Your task to perform on an android device: toggle translation in the chrome app Image 0: 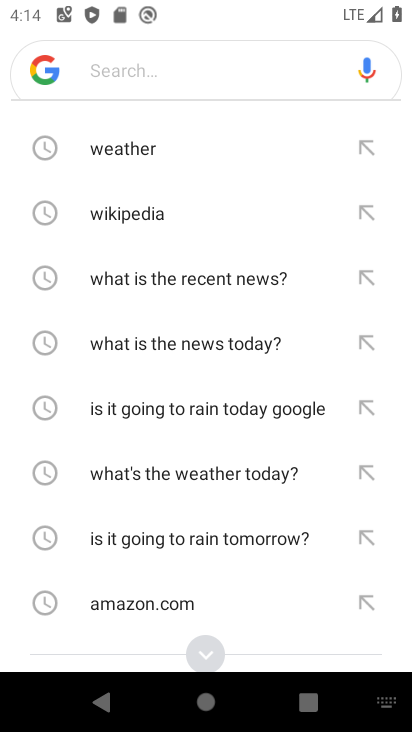
Step 0: press home button
Your task to perform on an android device: toggle translation in the chrome app Image 1: 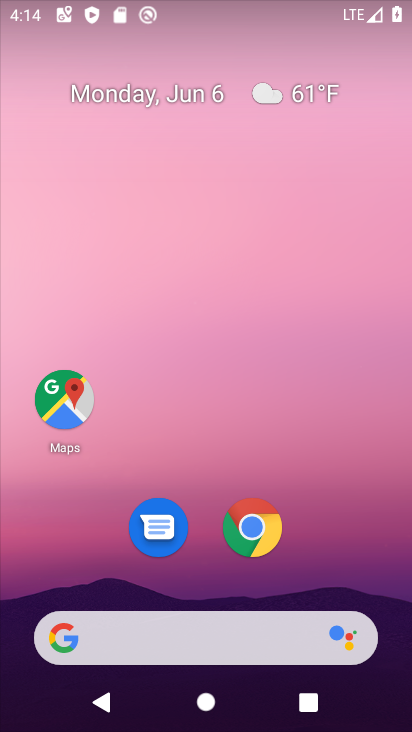
Step 1: click (249, 519)
Your task to perform on an android device: toggle translation in the chrome app Image 2: 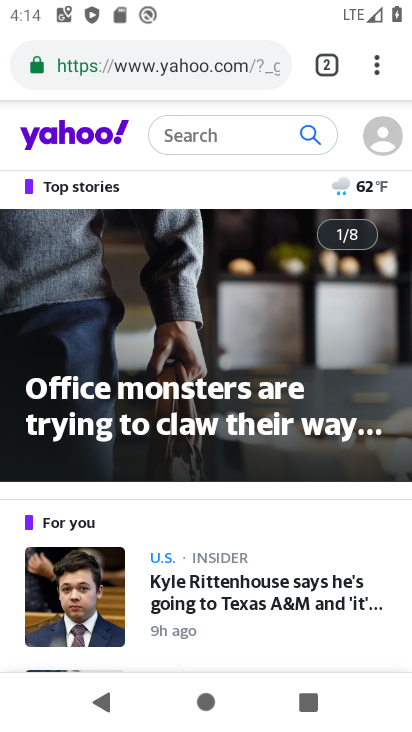
Step 2: click (382, 56)
Your task to perform on an android device: toggle translation in the chrome app Image 3: 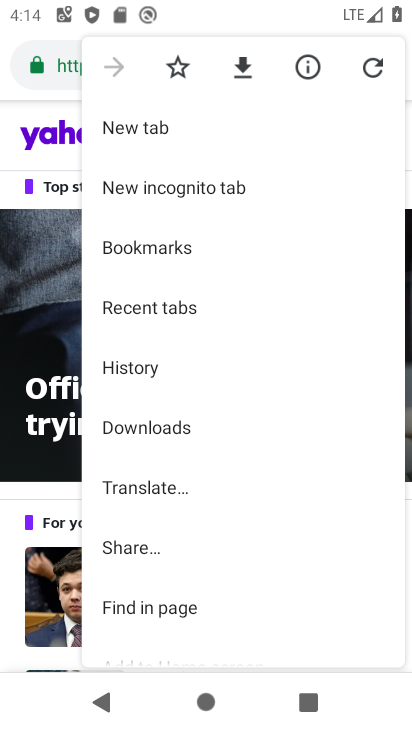
Step 3: click (130, 477)
Your task to perform on an android device: toggle translation in the chrome app Image 4: 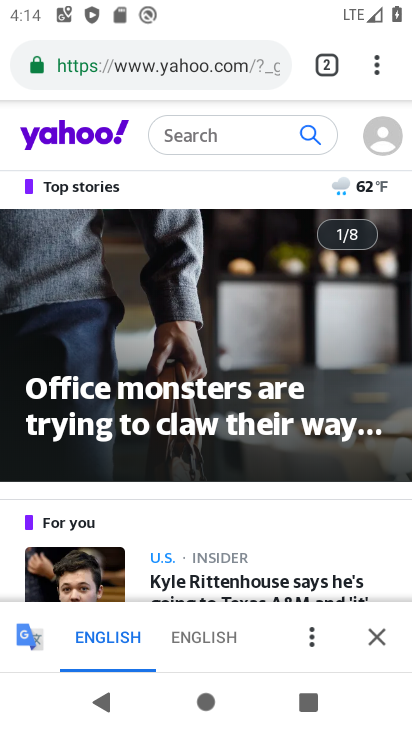
Step 4: click (200, 635)
Your task to perform on an android device: toggle translation in the chrome app Image 5: 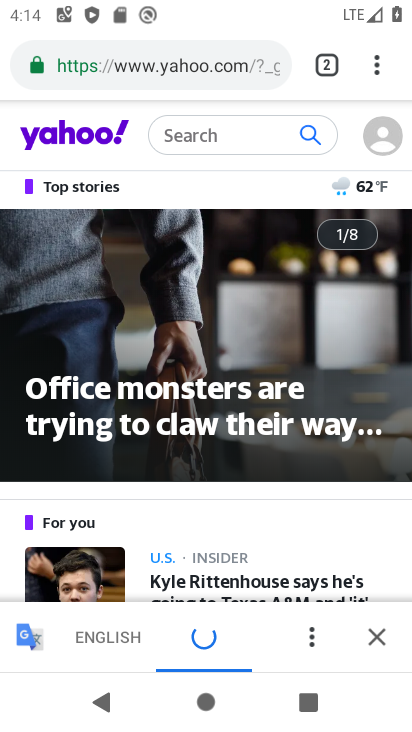
Step 5: click (292, 636)
Your task to perform on an android device: toggle translation in the chrome app Image 6: 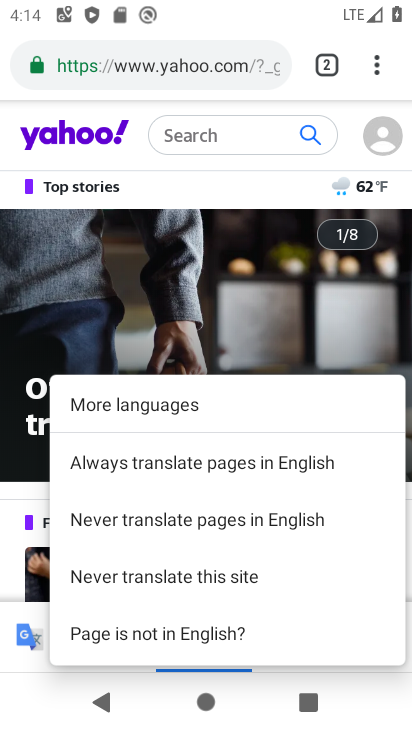
Step 6: task complete